Your task to perform on an android device: Go to privacy settings Image 0: 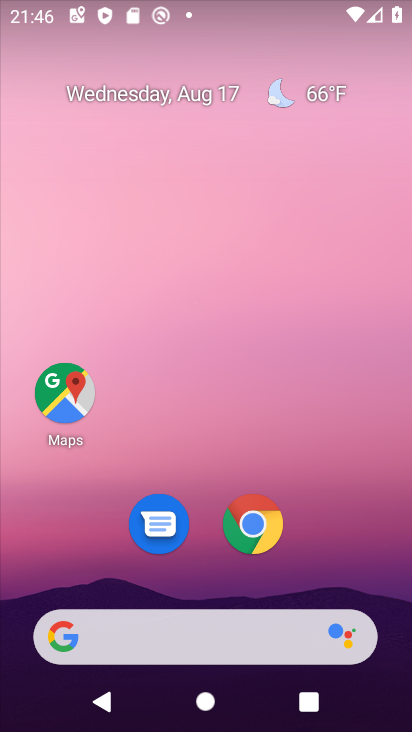
Step 0: drag from (331, 507) to (338, 8)
Your task to perform on an android device: Go to privacy settings Image 1: 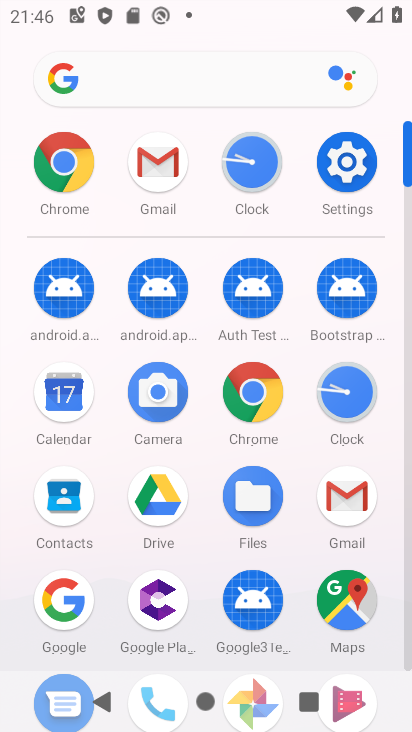
Step 1: click (340, 154)
Your task to perform on an android device: Go to privacy settings Image 2: 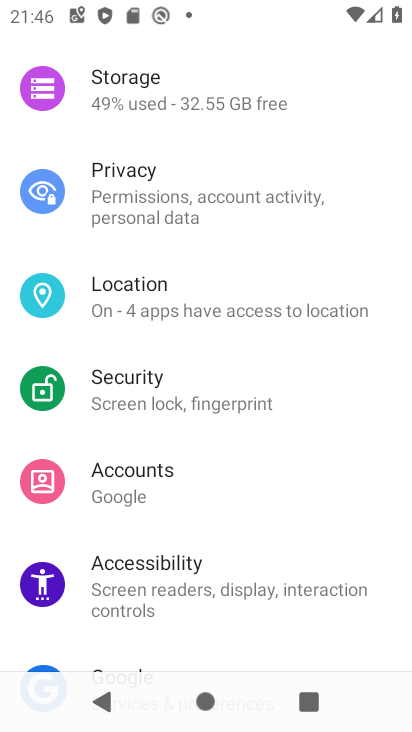
Step 2: click (227, 190)
Your task to perform on an android device: Go to privacy settings Image 3: 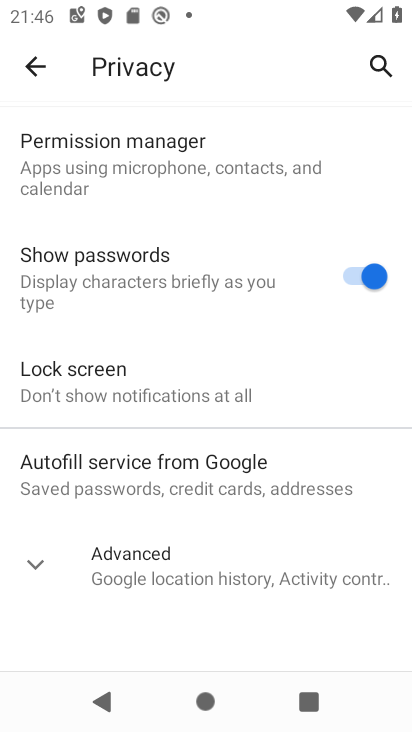
Step 3: click (34, 561)
Your task to perform on an android device: Go to privacy settings Image 4: 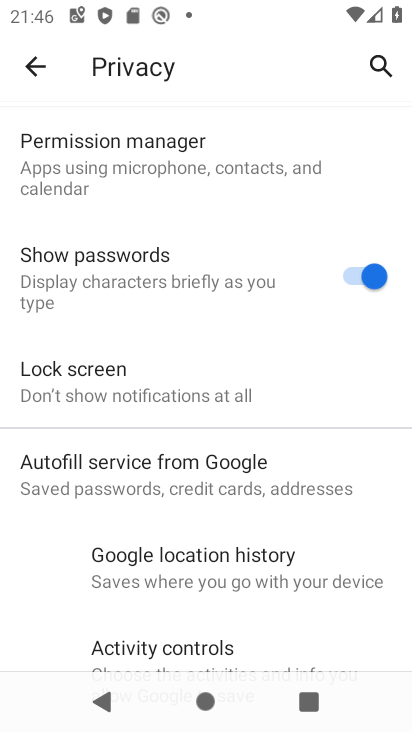
Step 4: task complete